Your task to perform on an android device: Open the phone app and click the voicemail tab. Image 0: 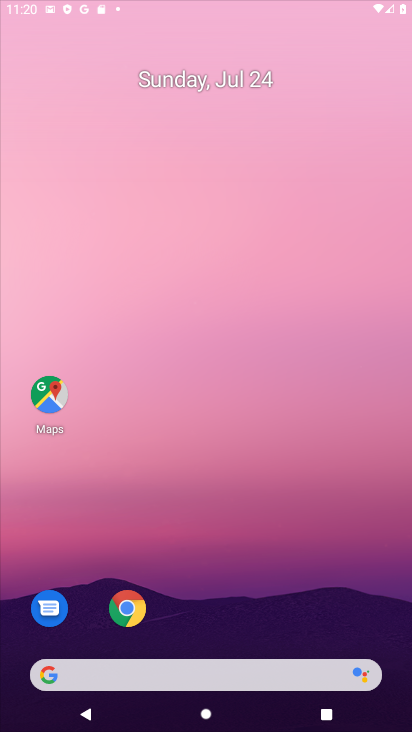
Step 0: click (222, 117)
Your task to perform on an android device: Open the phone app and click the voicemail tab. Image 1: 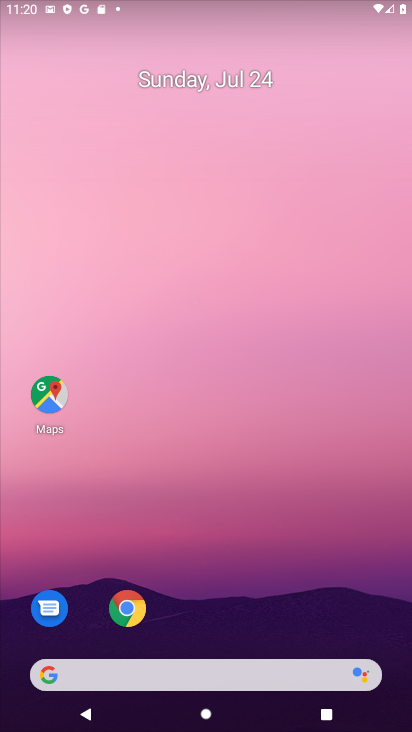
Step 1: press home button
Your task to perform on an android device: Open the phone app and click the voicemail tab. Image 2: 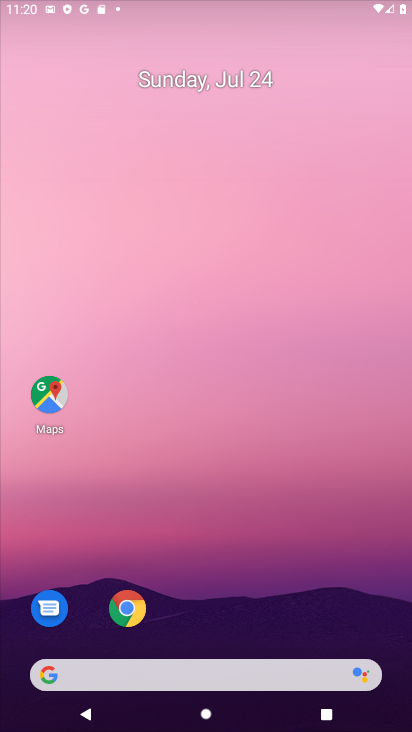
Step 2: drag from (370, 592) to (228, 131)
Your task to perform on an android device: Open the phone app and click the voicemail tab. Image 3: 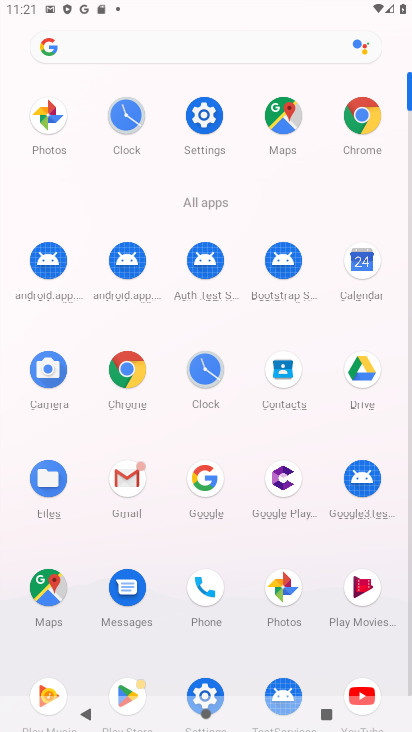
Step 3: click (201, 592)
Your task to perform on an android device: Open the phone app and click the voicemail tab. Image 4: 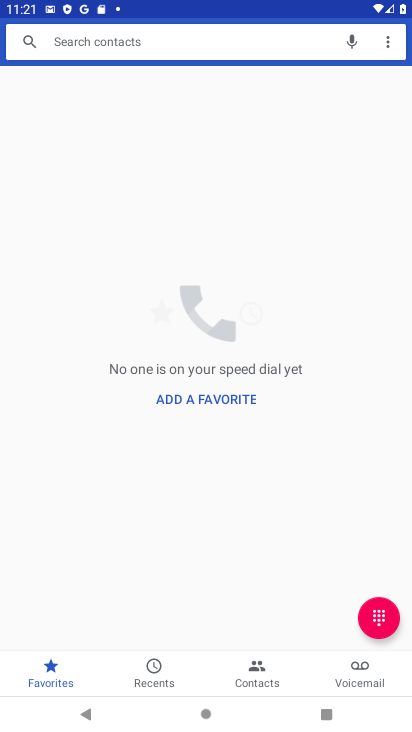
Step 4: click (357, 674)
Your task to perform on an android device: Open the phone app and click the voicemail tab. Image 5: 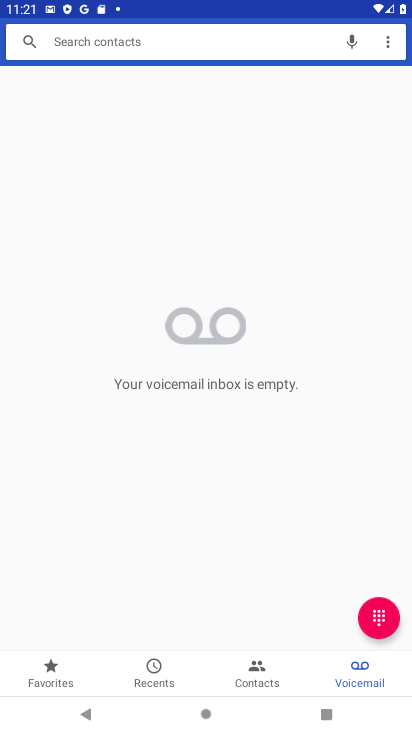
Step 5: click (358, 674)
Your task to perform on an android device: Open the phone app and click the voicemail tab. Image 6: 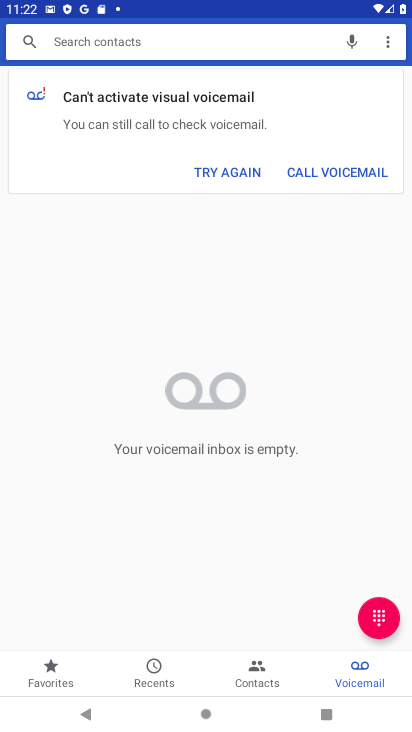
Step 6: task complete